Your task to perform on an android device: turn on notifications settings in the gmail app Image 0: 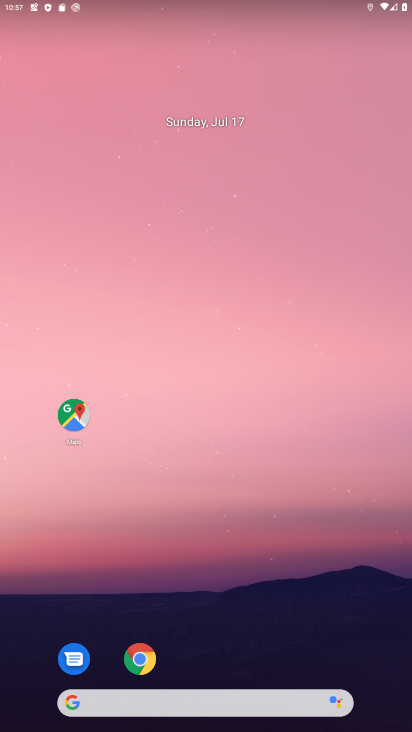
Step 0: drag from (312, 646) to (274, 83)
Your task to perform on an android device: turn on notifications settings in the gmail app Image 1: 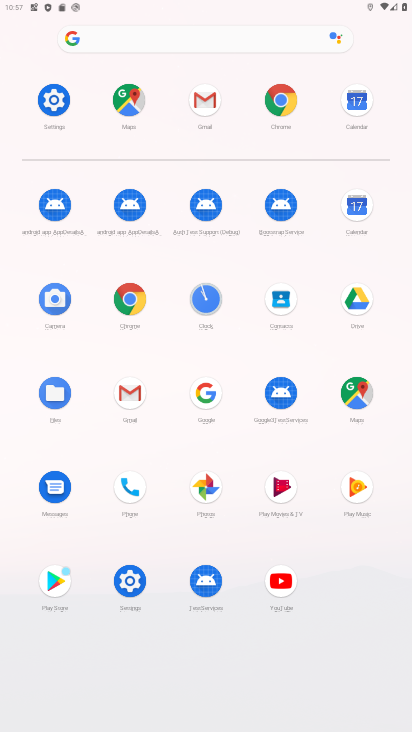
Step 1: click (205, 103)
Your task to perform on an android device: turn on notifications settings in the gmail app Image 2: 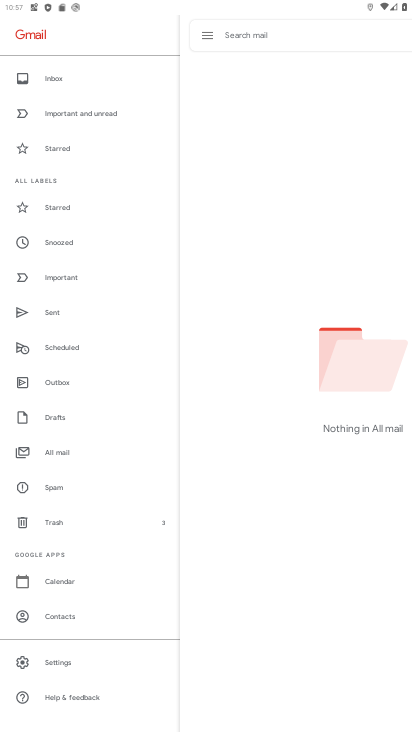
Step 2: click (68, 659)
Your task to perform on an android device: turn on notifications settings in the gmail app Image 3: 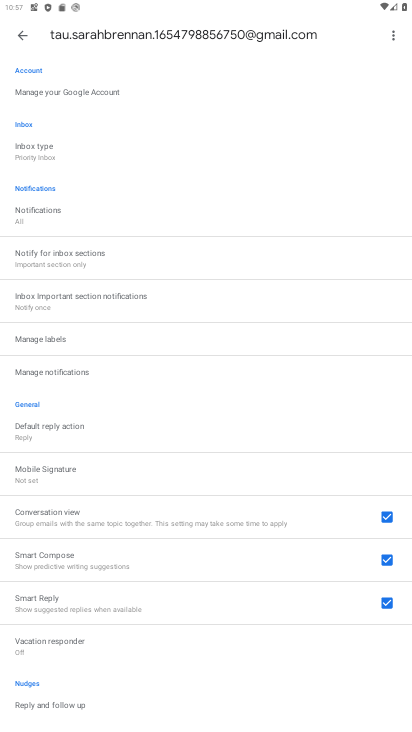
Step 3: click (87, 372)
Your task to perform on an android device: turn on notifications settings in the gmail app Image 4: 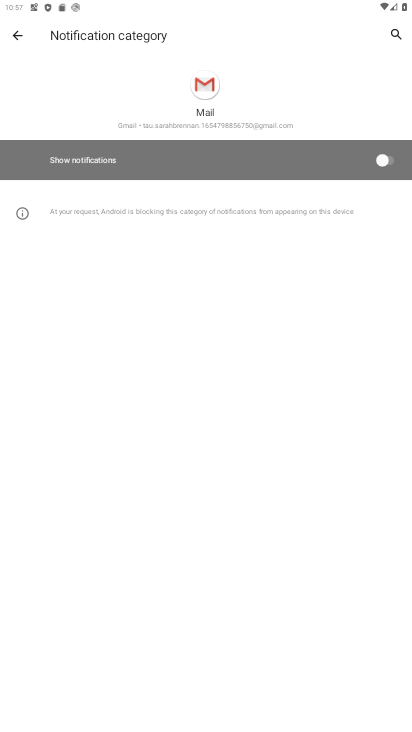
Step 4: click (370, 155)
Your task to perform on an android device: turn on notifications settings in the gmail app Image 5: 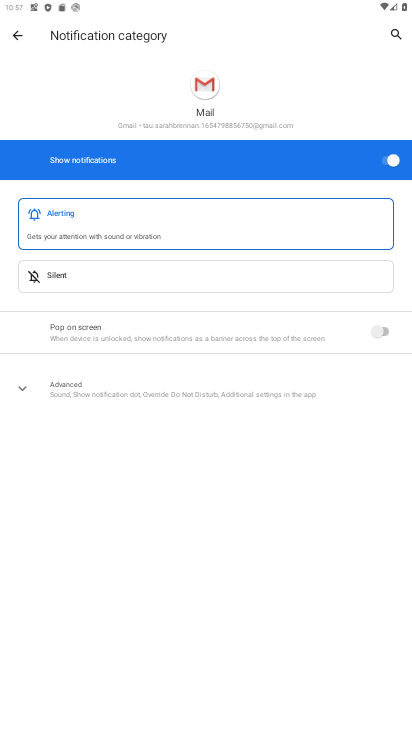
Step 5: task complete